Your task to perform on an android device: change the clock display to digital Image 0: 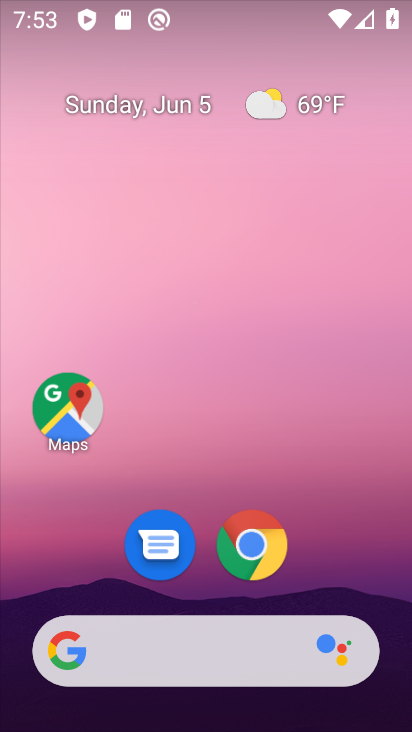
Step 0: drag from (377, 186) to (342, 89)
Your task to perform on an android device: change the clock display to digital Image 1: 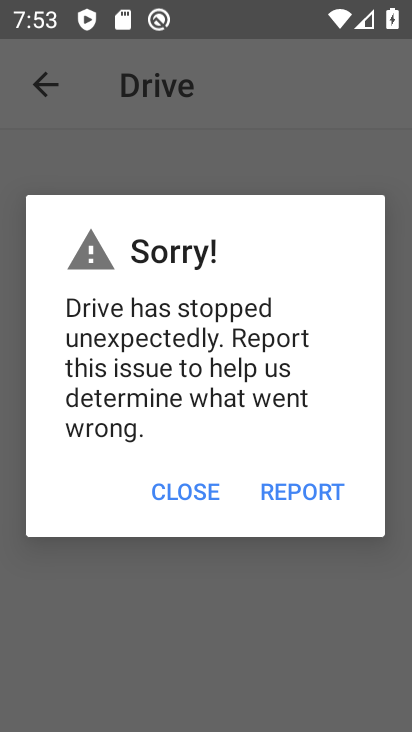
Step 1: press home button
Your task to perform on an android device: change the clock display to digital Image 2: 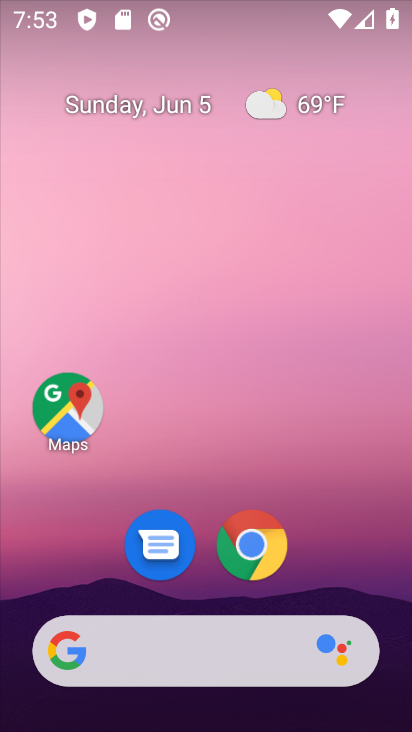
Step 2: drag from (381, 586) to (383, 182)
Your task to perform on an android device: change the clock display to digital Image 3: 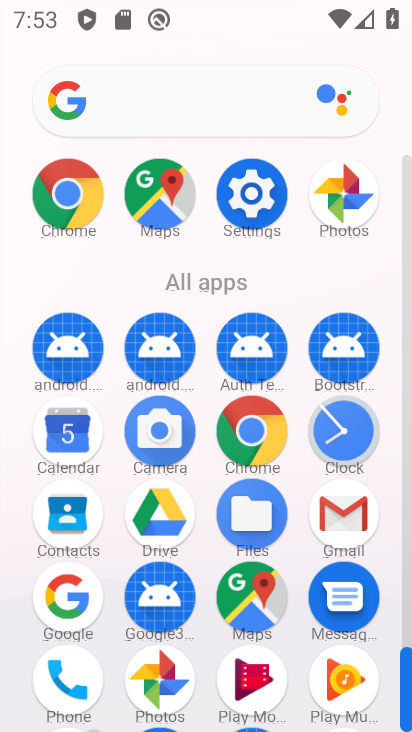
Step 3: click (356, 437)
Your task to perform on an android device: change the clock display to digital Image 4: 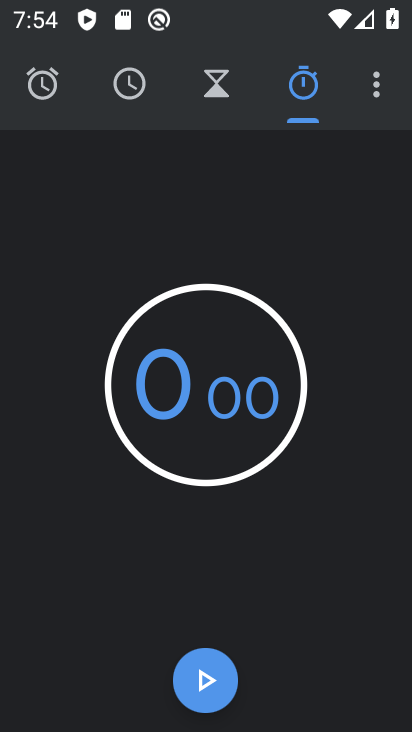
Step 4: click (377, 103)
Your task to perform on an android device: change the clock display to digital Image 5: 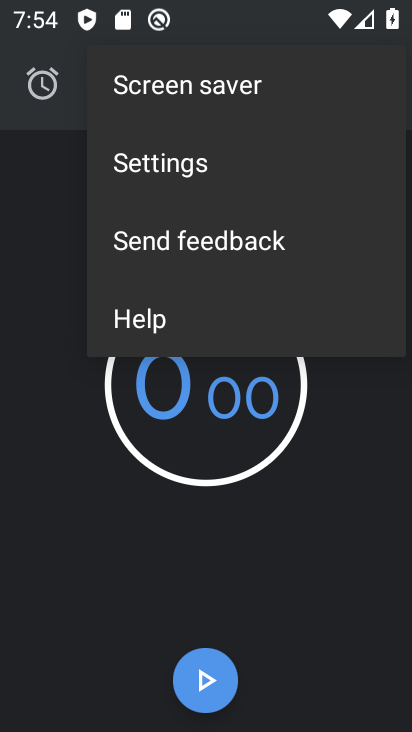
Step 5: click (228, 174)
Your task to perform on an android device: change the clock display to digital Image 6: 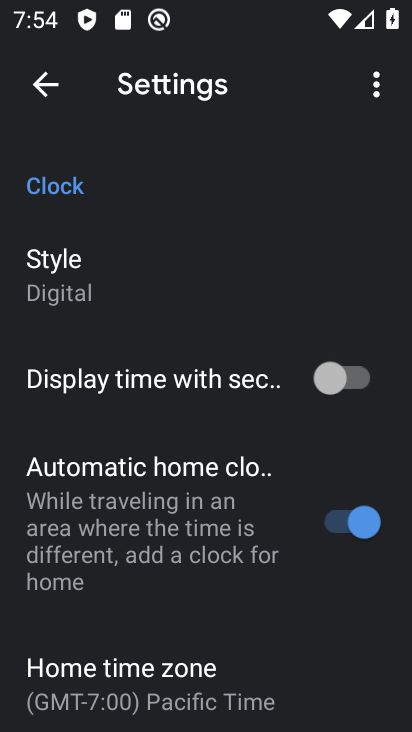
Step 6: task complete